Your task to perform on an android device: refresh tabs in the chrome app Image 0: 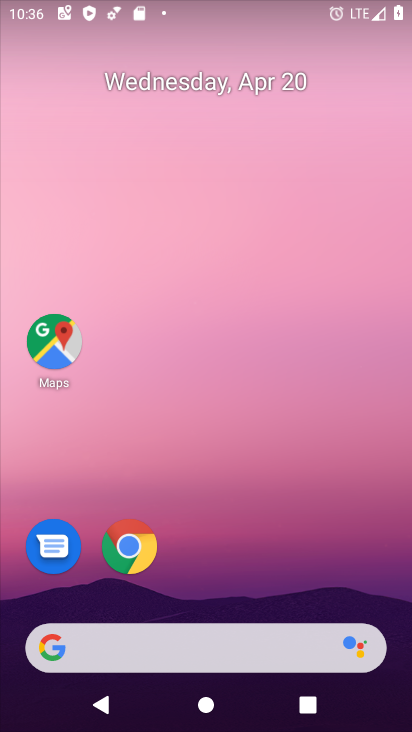
Step 0: drag from (211, 568) to (159, 180)
Your task to perform on an android device: refresh tabs in the chrome app Image 1: 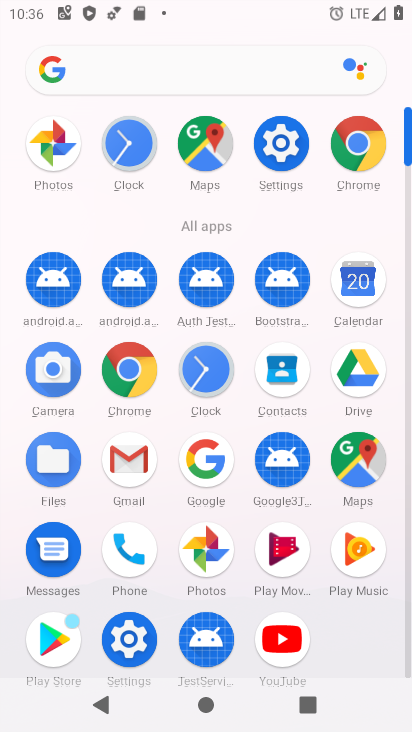
Step 1: click (126, 383)
Your task to perform on an android device: refresh tabs in the chrome app Image 2: 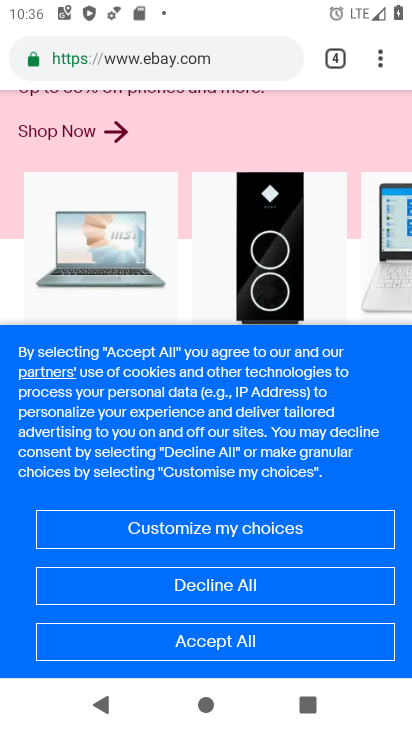
Step 2: click (378, 54)
Your task to perform on an android device: refresh tabs in the chrome app Image 3: 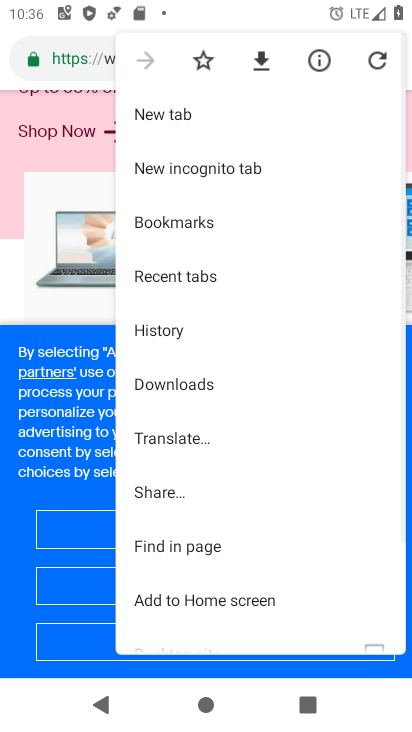
Step 3: click (378, 54)
Your task to perform on an android device: refresh tabs in the chrome app Image 4: 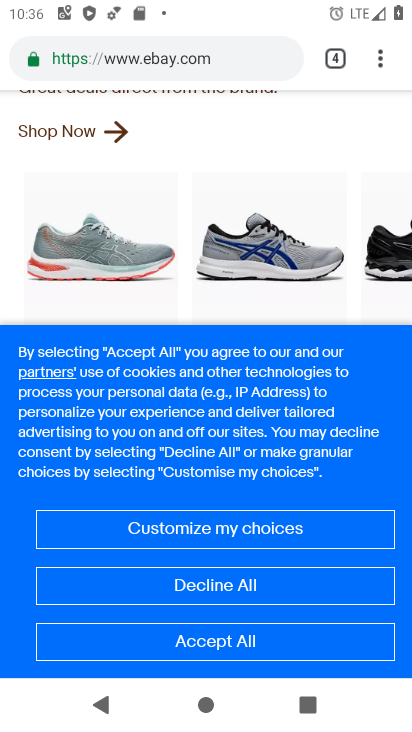
Step 4: task complete